Your task to perform on an android device: Open display settings Image 0: 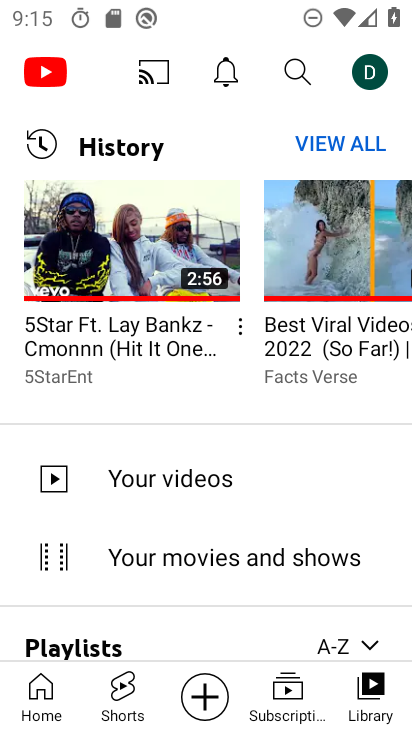
Step 0: press home button
Your task to perform on an android device: Open display settings Image 1: 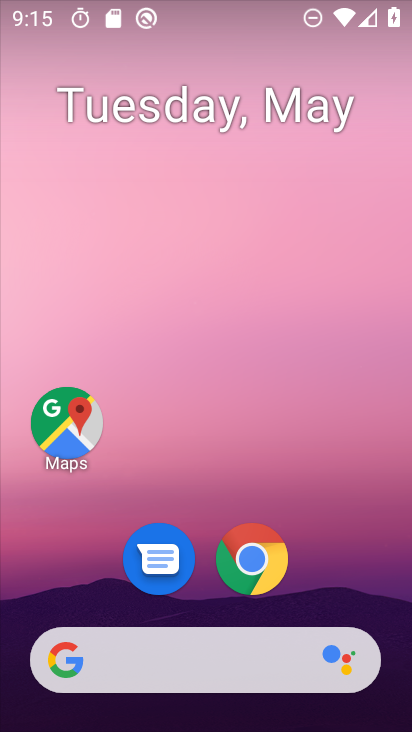
Step 1: drag from (395, 646) to (321, 48)
Your task to perform on an android device: Open display settings Image 2: 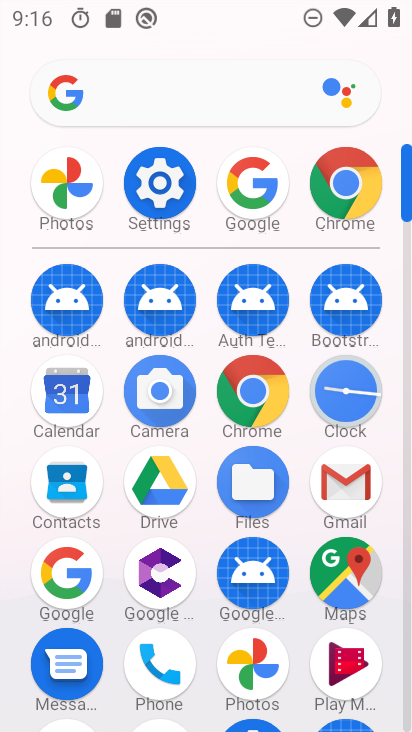
Step 2: click (165, 174)
Your task to perform on an android device: Open display settings Image 3: 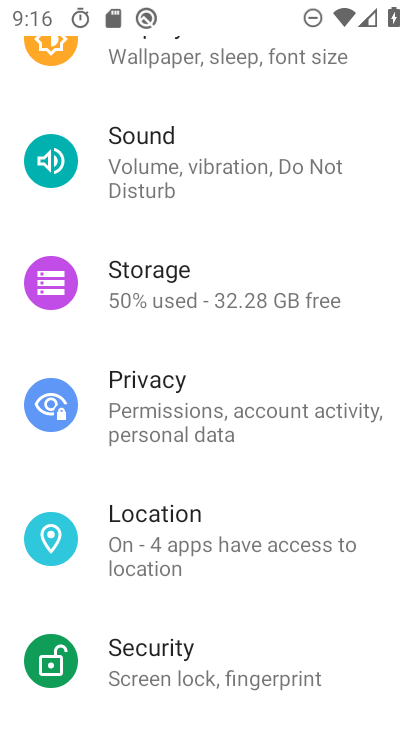
Step 3: drag from (186, 155) to (191, 621)
Your task to perform on an android device: Open display settings Image 4: 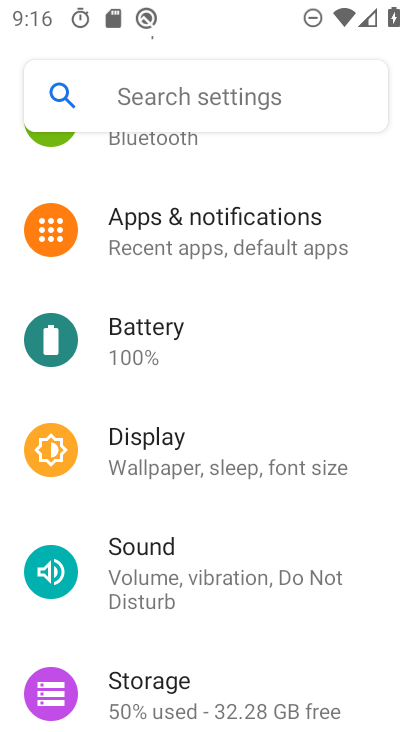
Step 4: click (197, 475)
Your task to perform on an android device: Open display settings Image 5: 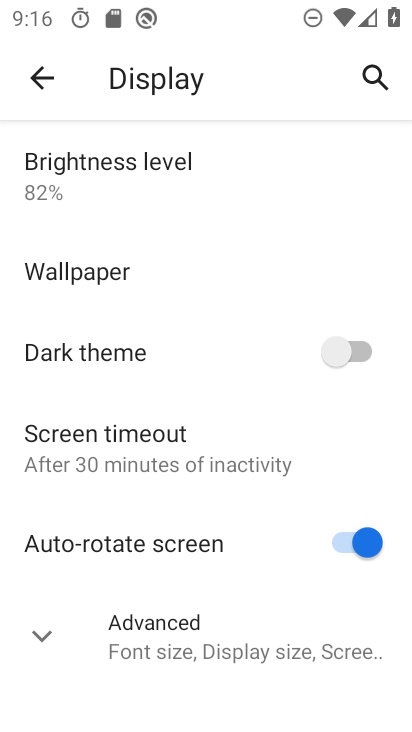
Step 5: task complete